Your task to perform on an android device: Go to network settings Image 0: 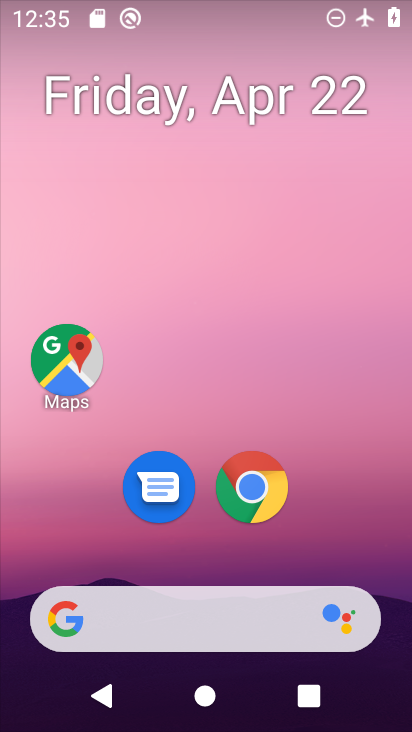
Step 0: drag from (335, 470) to (349, 182)
Your task to perform on an android device: Go to network settings Image 1: 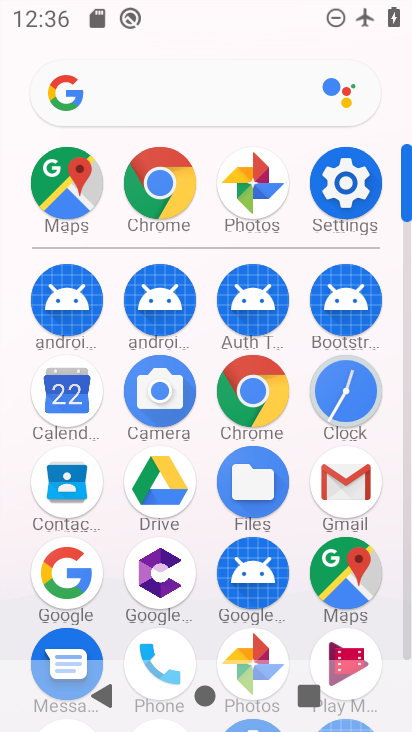
Step 1: click (350, 186)
Your task to perform on an android device: Go to network settings Image 2: 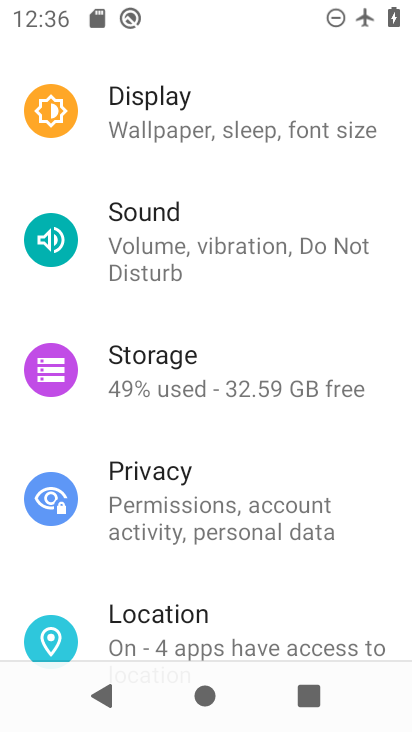
Step 2: drag from (310, 142) to (228, 636)
Your task to perform on an android device: Go to network settings Image 3: 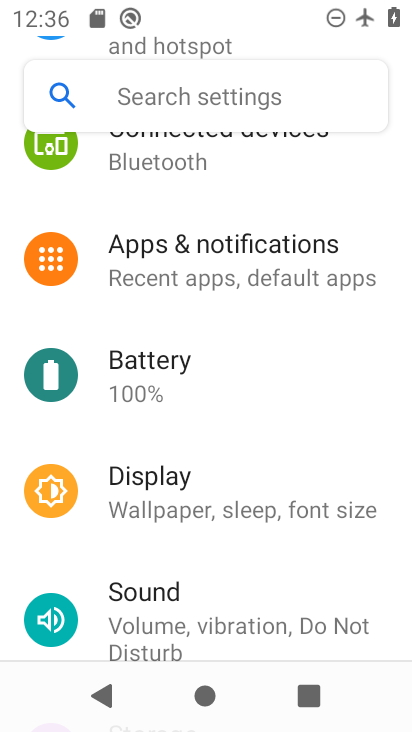
Step 3: drag from (247, 210) to (202, 608)
Your task to perform on an android device: Go to network settings Image 4: 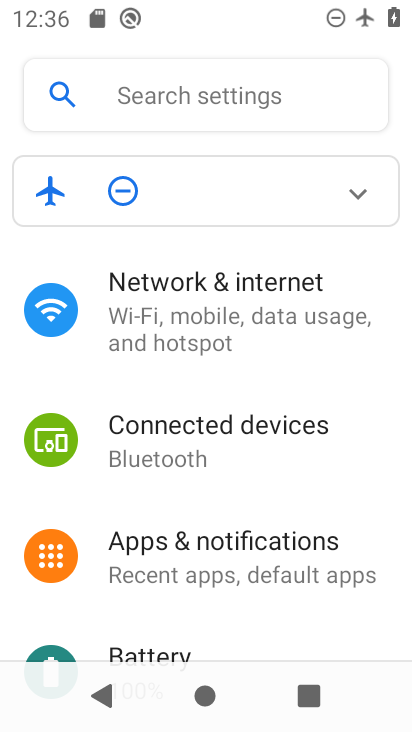
Step 4: click (233, 286)
Your task to perform on an android device: Go to network settings Image 5: 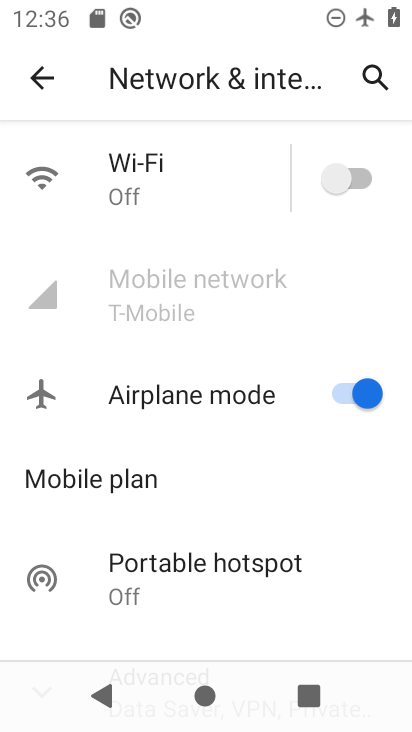
Step 5: task complete